Your task to perform on an android device: turn off airplane mode Image 0: 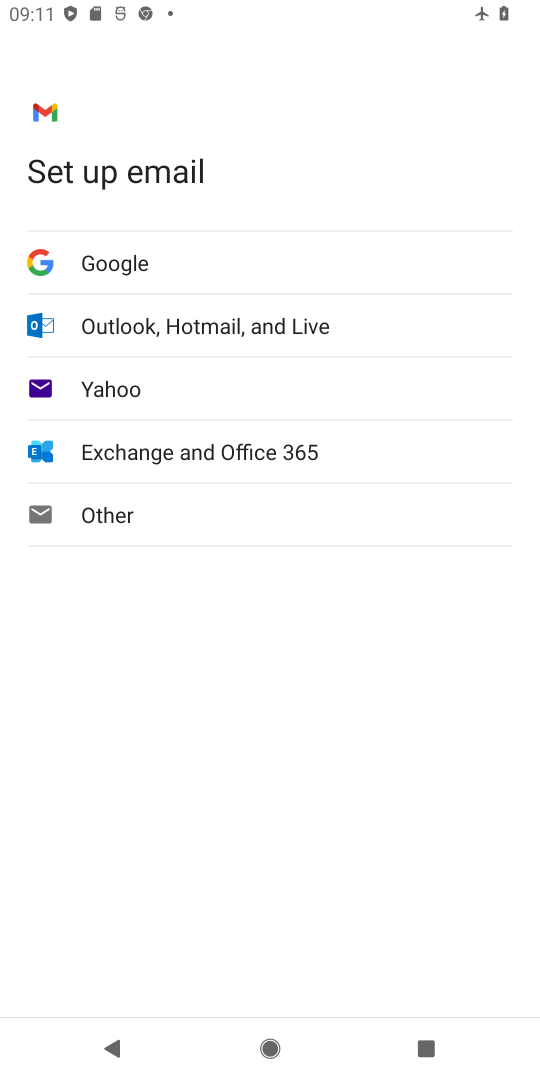
Step 0: press home button
Your task to perform on an android device: turn off airplane mode Image 1: 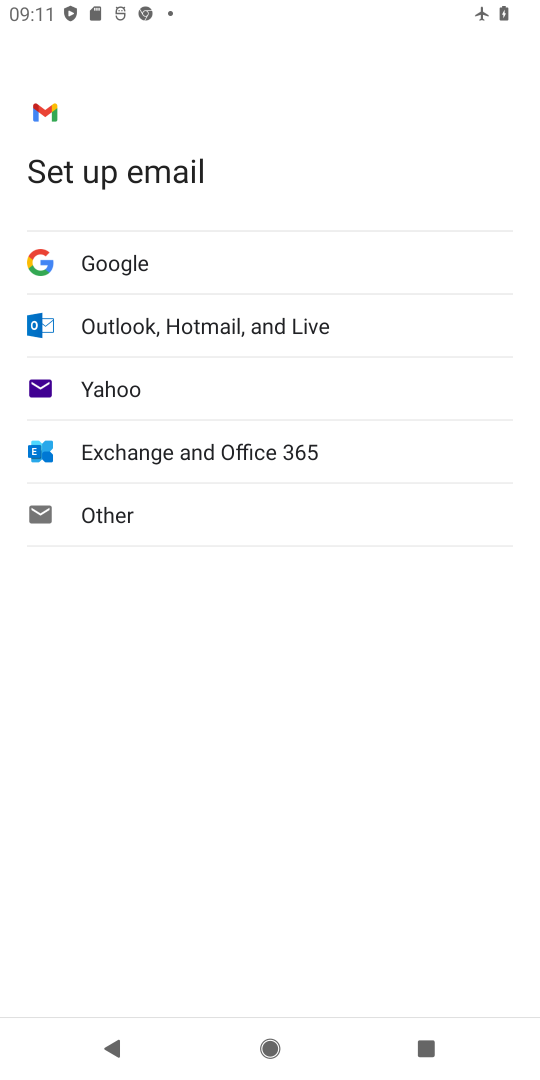
Step 1: press home button
Your task to perform on an android device: turn off airplane mode Image 2: 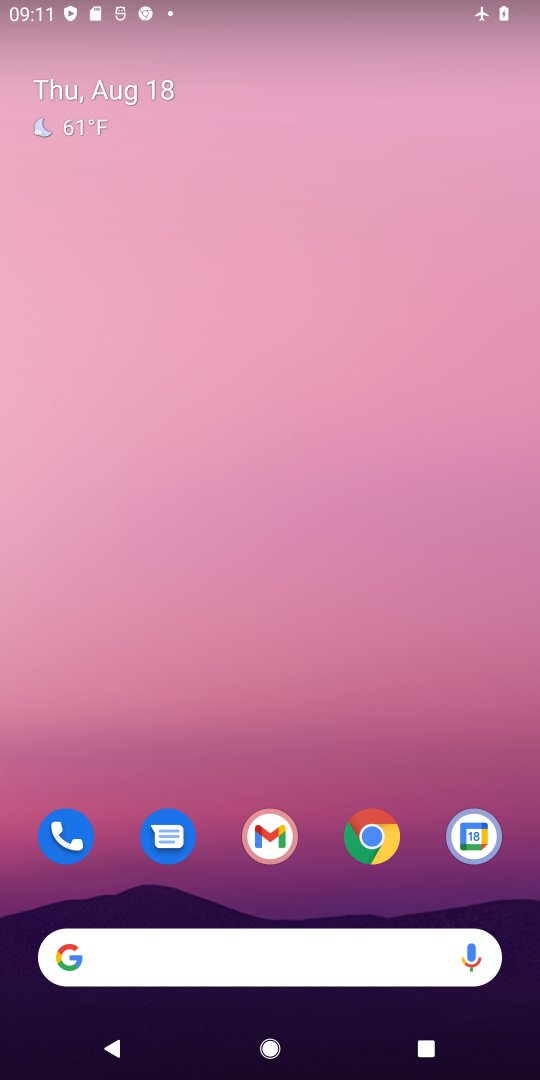
Step 2: drag from (207, 736) to (329, 106)
Your task to perform on an android device: turn off airplane mode Image 3: 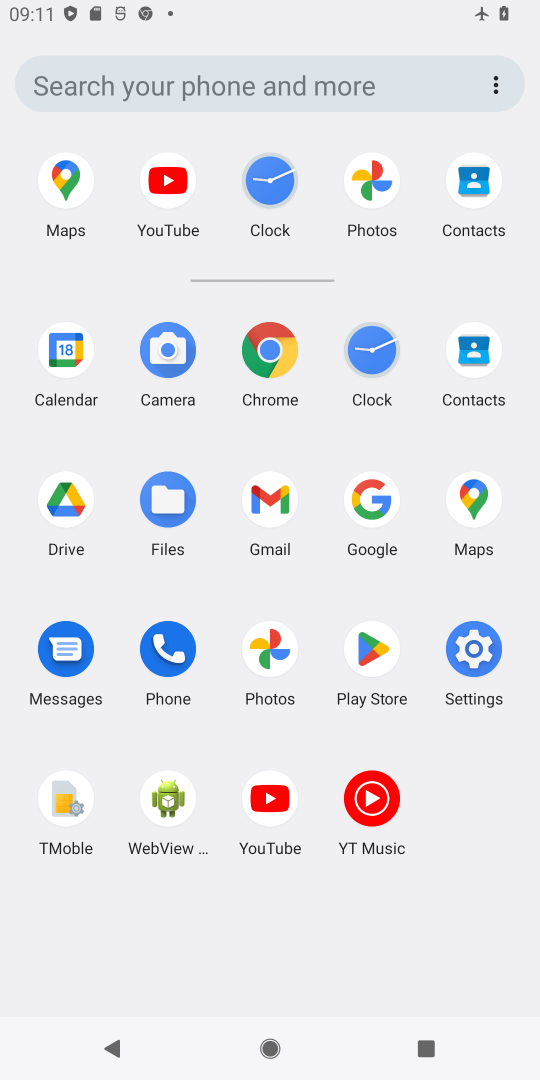
Step 3: click (483, 651)
Your task to perform on an android device: turn off airplane mode Image 4: 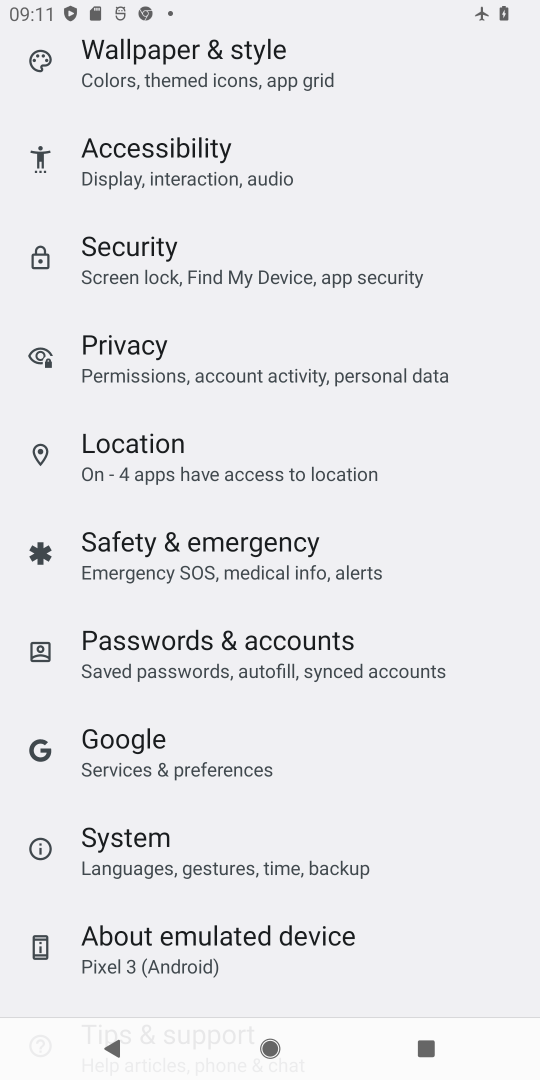
Step 4: drag from (279, 155) to (205, 897)
Your task to perform on an android device: turn off airplane mode Image 5: 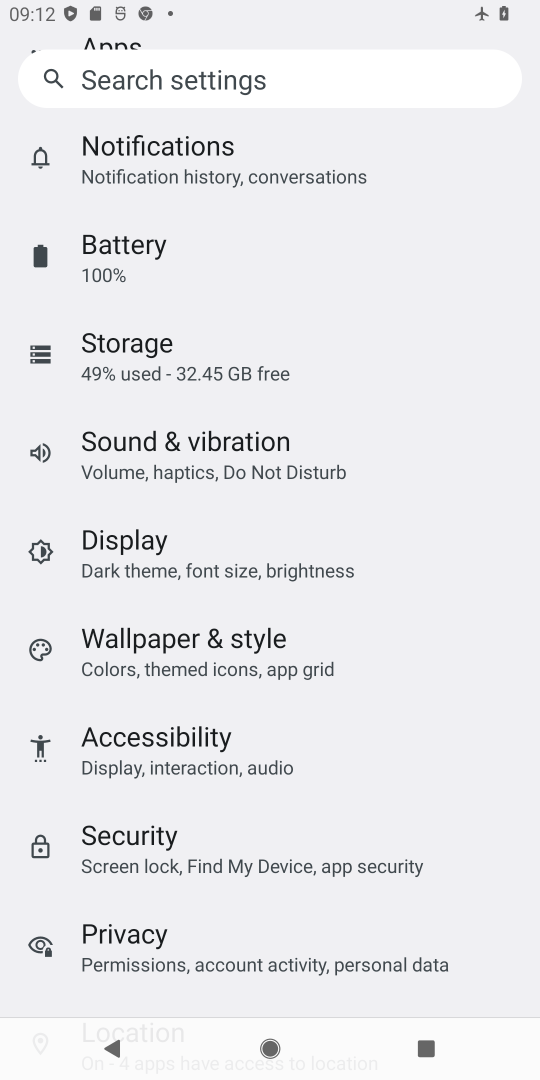
Step 5: drag from (251, 166) to (205, 796)
Your task to perform on an android device: turn off airplane mode Image 6: 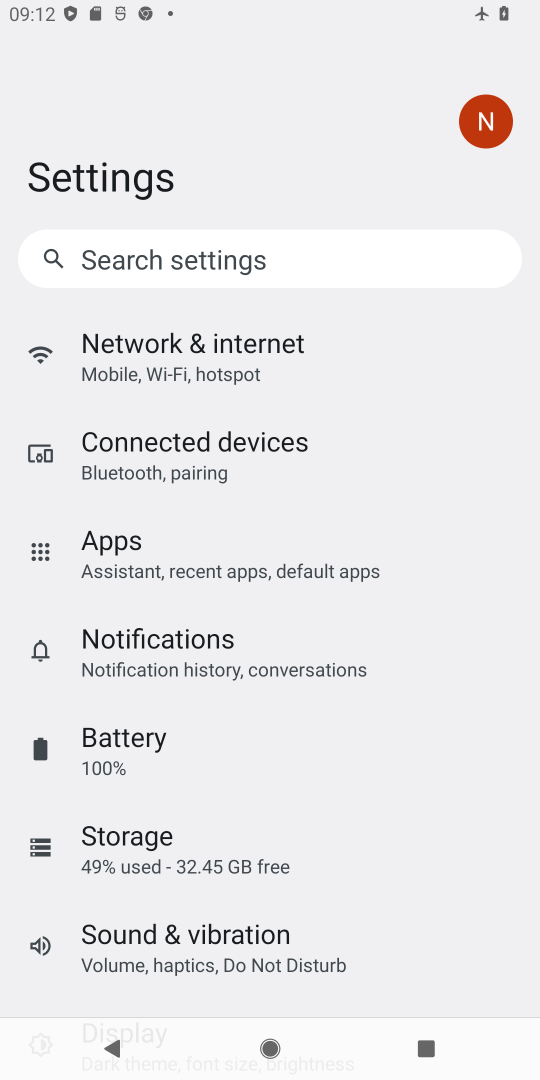
Step 6: click (209, 349)
Your task to perform on an android device: turn off airplane mode Image 7: 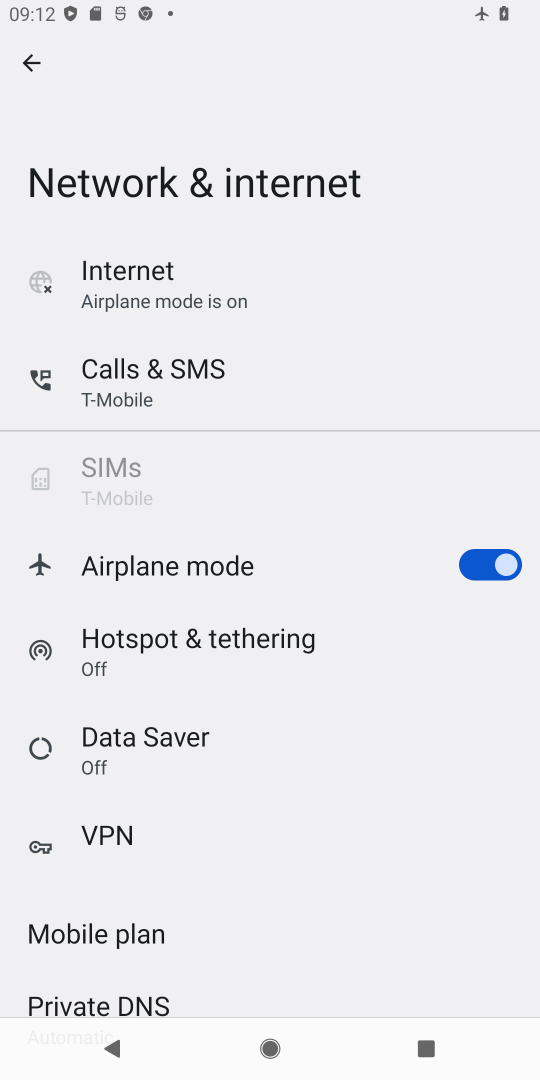
Step 7: click (484, 569)
Your task to perform on an android device: turn off airplane mode Image 8: 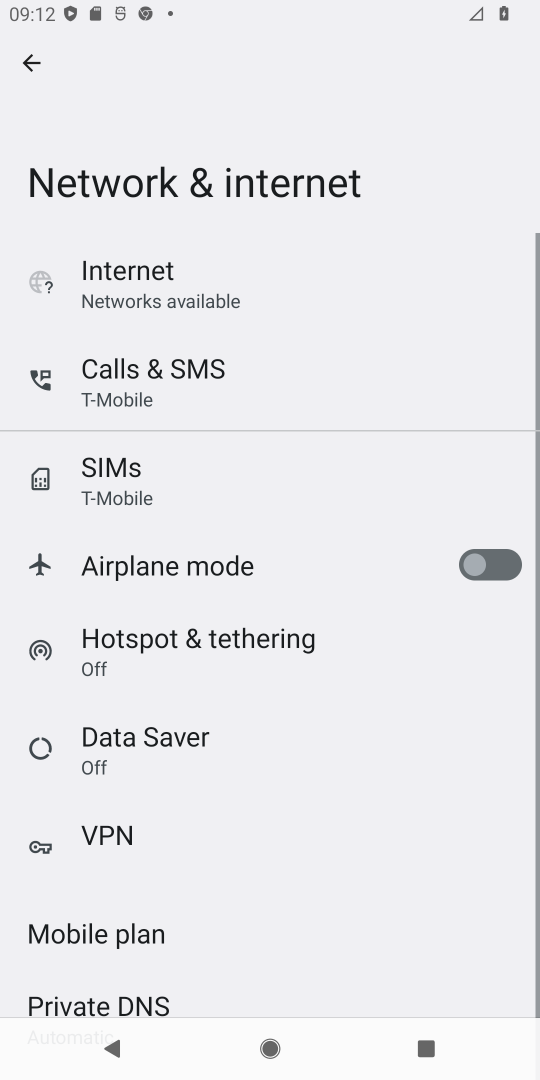
Step 8: task complete